Your task to perform on an android device: What is the news today? Image 0: 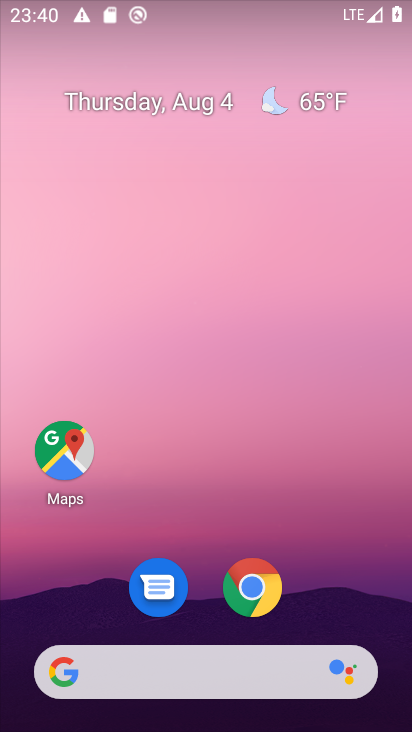
Step 0: drag from (131, 533) to (149, 253)
Your task to perform on an android device: What is the news today? Image 1: 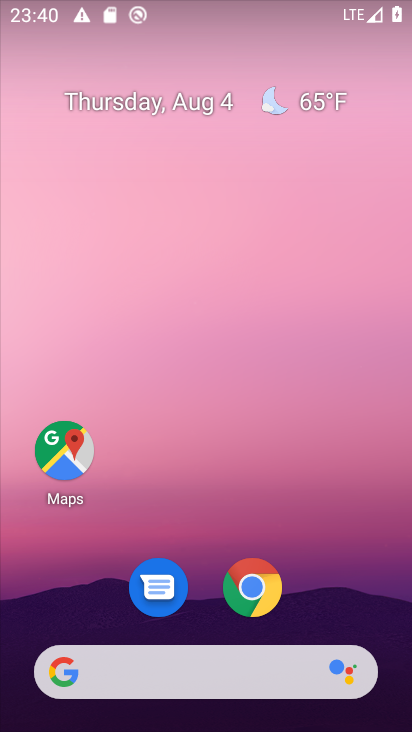
Step 1: drag from (223, 634) to (244, 330)
Your task to perform on an android device: What is the news today? Image 2: 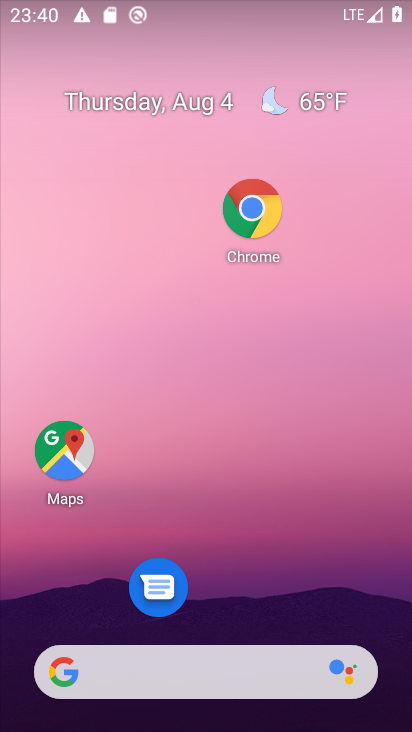
Step 2: click (264, 206)
Your task to perform on an android device: What is the news today? Image 3: 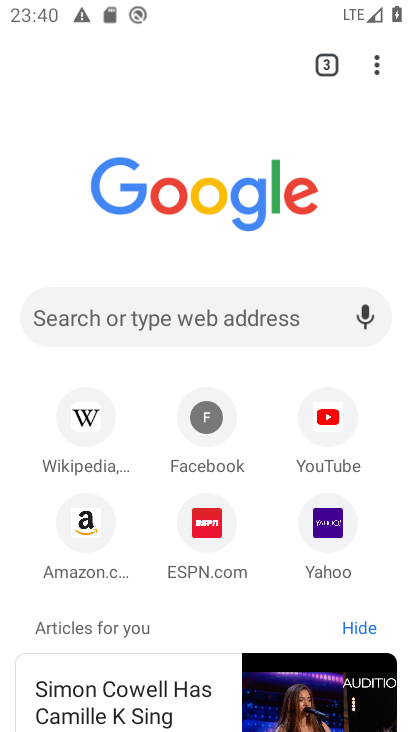
Step 3: click (204, 302)
Your task to perform on an android device: What is the news today? Image 4: 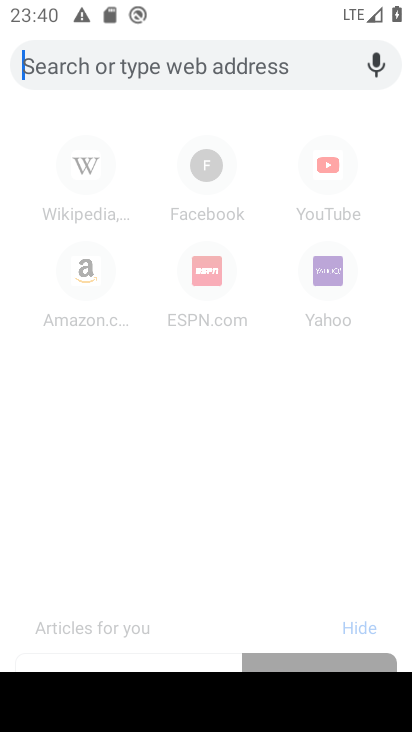
Step 4: type "What is the news today "
Your task to perform on an android device: What is the news today? Image 5: 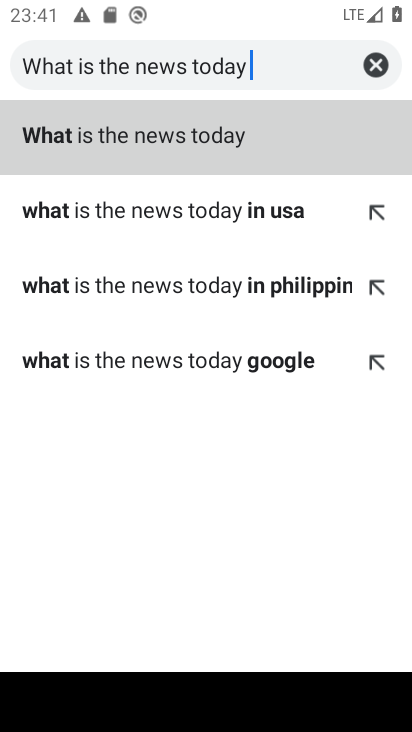
Step 5: click (259, 144)
Your task to perform on an android device: What is the news today? Image 6: 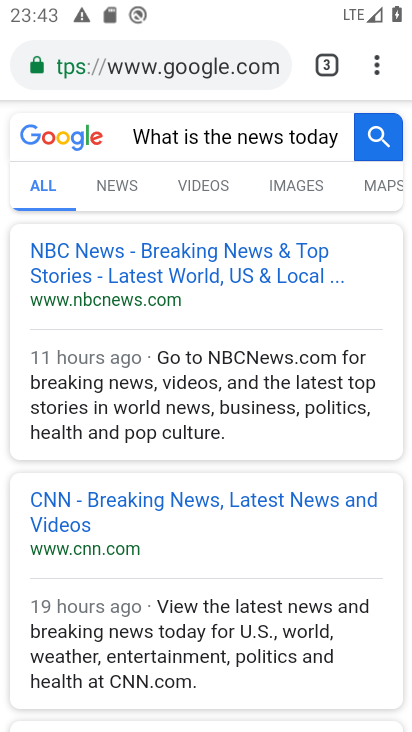
Step 6: task complete